Your task to perform on an android device: turn on bluetooth scan Image 0: 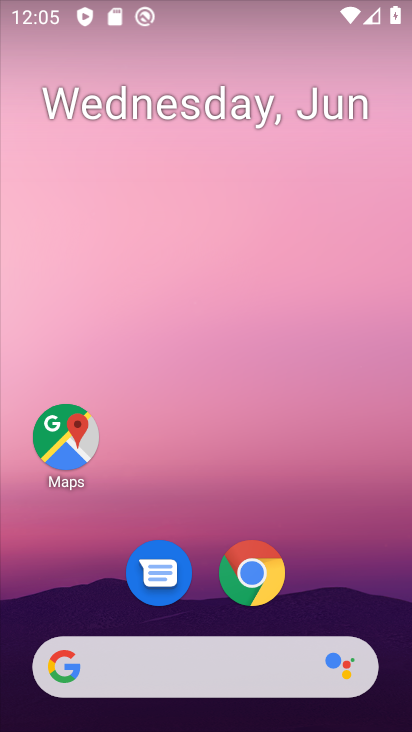
Step 0: drag from (70, 621) to (241, 45)
Your task to perform on an android device: turn on bluetooth scan Image 1: 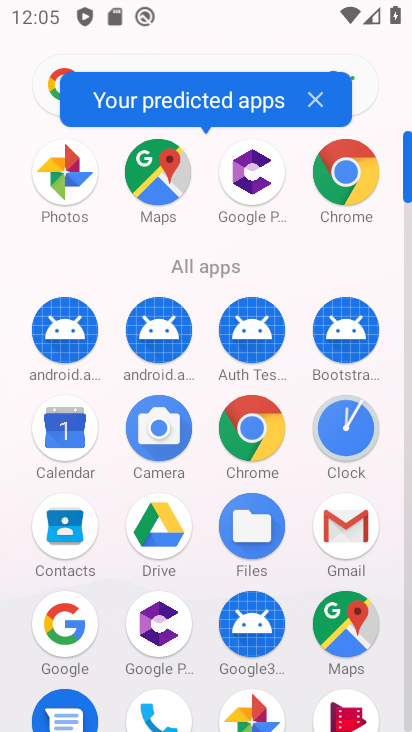
Step 1: drag from (146, 576) to (283, 319)
Your task to perform on an android device: turn on bluetooth scan Image 2: 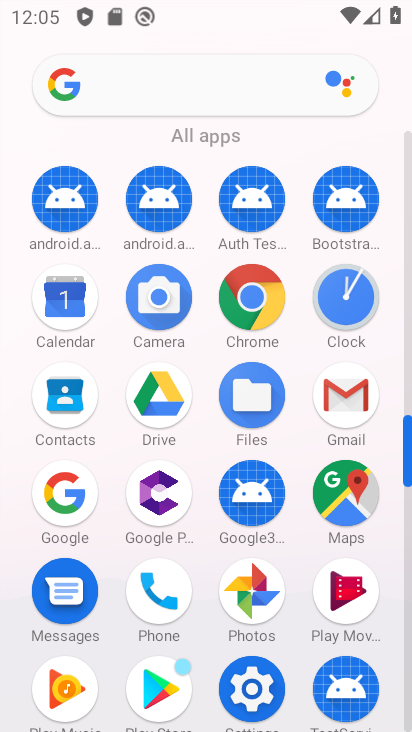
Step 2: click (257, 670)
Your task to perform on an android device: turn on bluetooth scan Image 3: 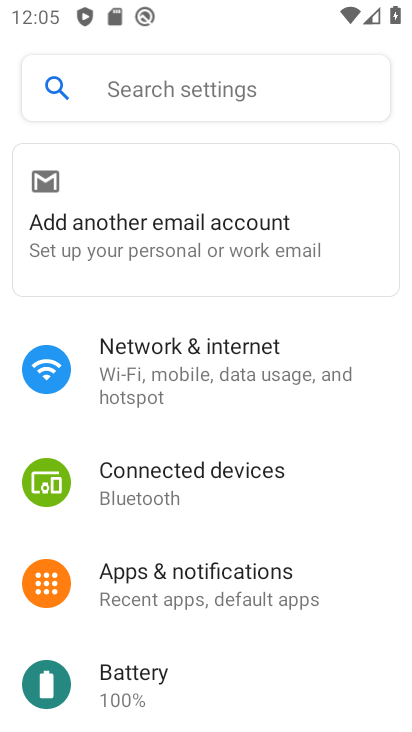
Step 3: click (202, 484)
Your task to perform on an android device: turn on bluetooth scan Image 4: 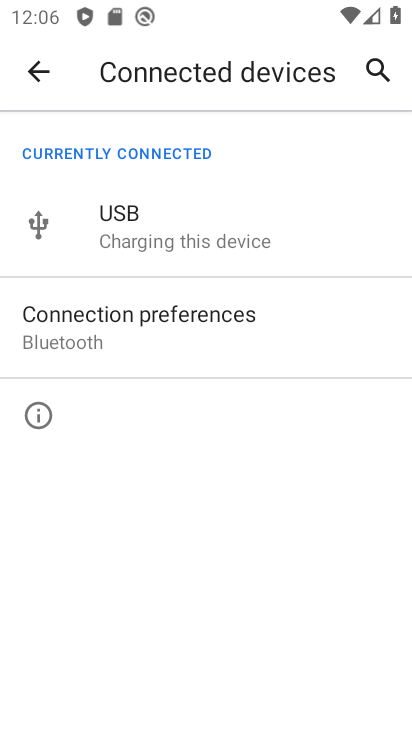
Step 4: click (220, 325)
Your task to perform on an android device: turn on bluetooth scan Image 5: 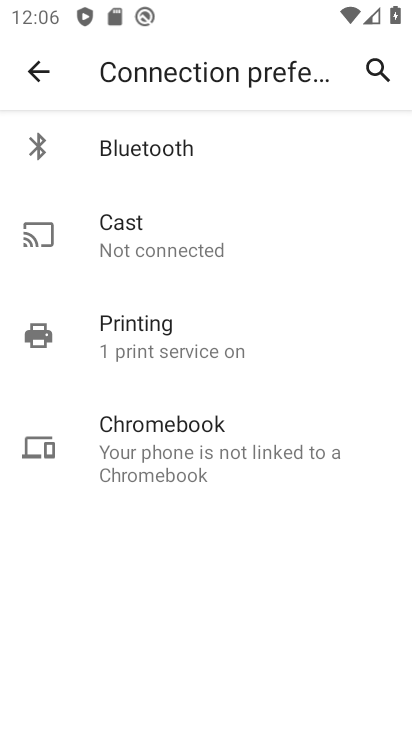
Step 5: click (203, 159)
Your task to perform on an android device: turn on bluetooth scan Image 6: 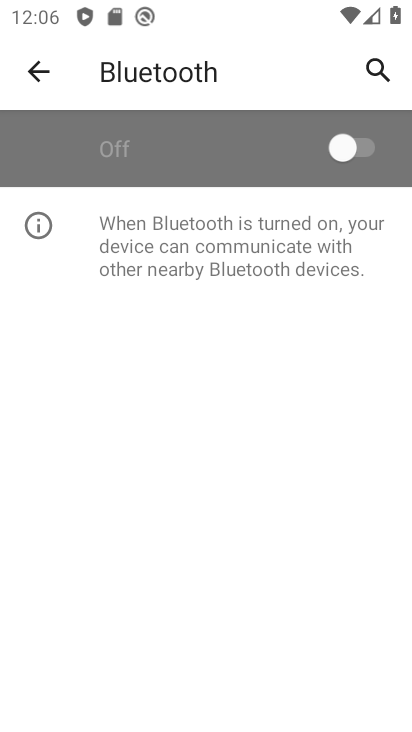
Step 6: click (374, 150)
Your task to perform on an android device: turn on bluetooth scan Image 7: 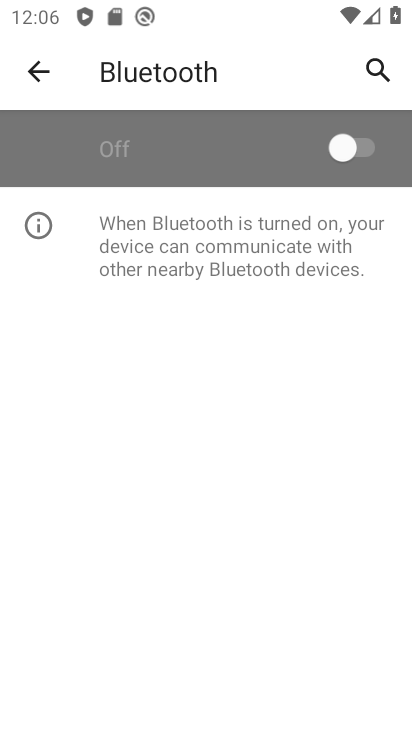
Step 7: click (374, 150)
Your task to perform on an android device: turn on bluetooth scan Image 8: 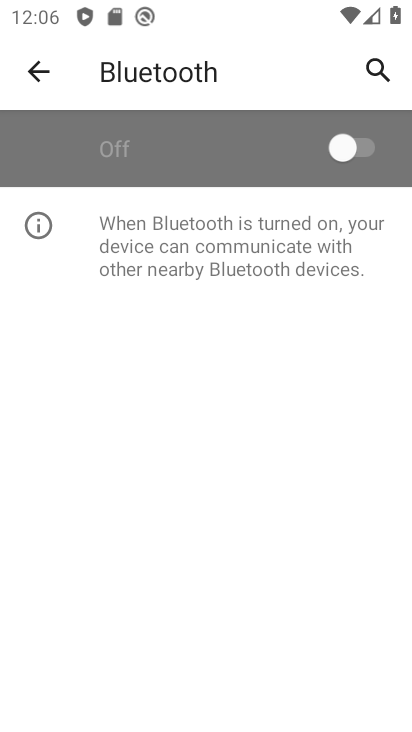
Step 8: click (374, 150)
Your task to perform on an android device: turn on bluetooth scan Image 9: 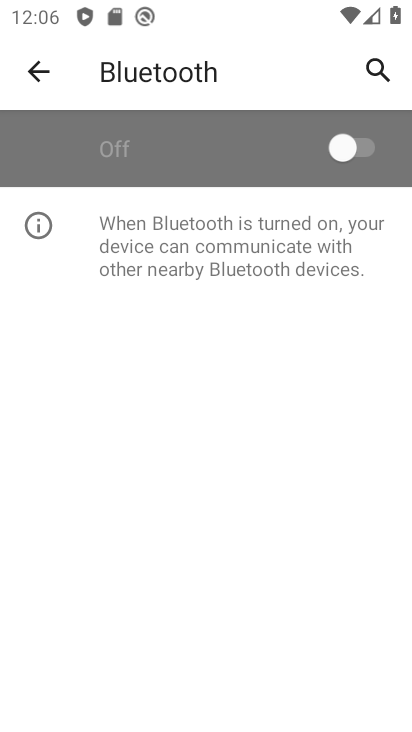
Step 9: task complete